Your task to perform on an android device: turn notification dots on Image 0: 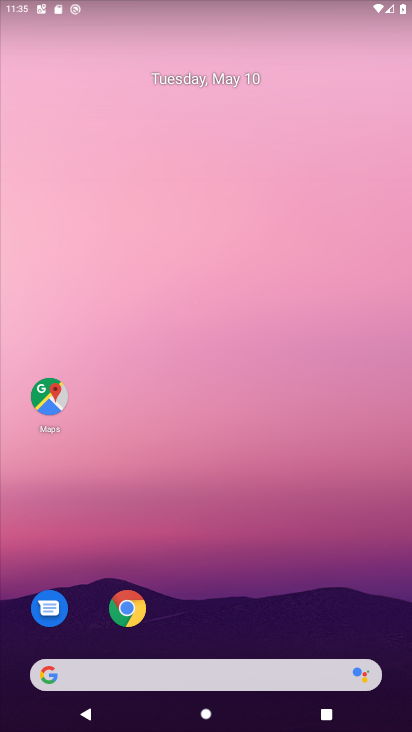
Step 0: drag from (210, 665) to (198, 149)
Your task to perform on an android device: turn notification dots on Image 1: 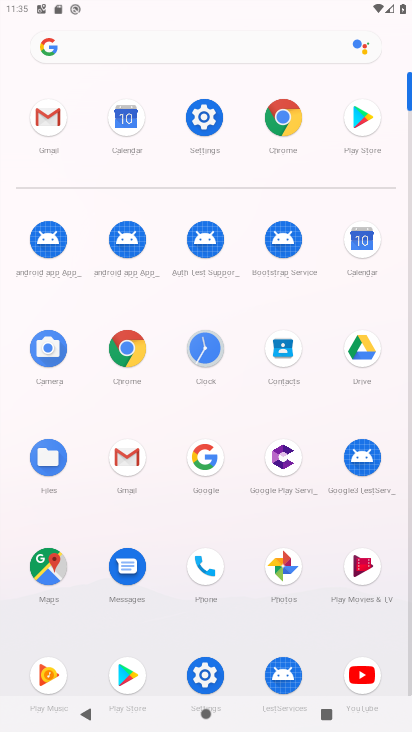
Step 1: click (209, 664)
Your task to perform on an android device: turn notification dots on Image 2: 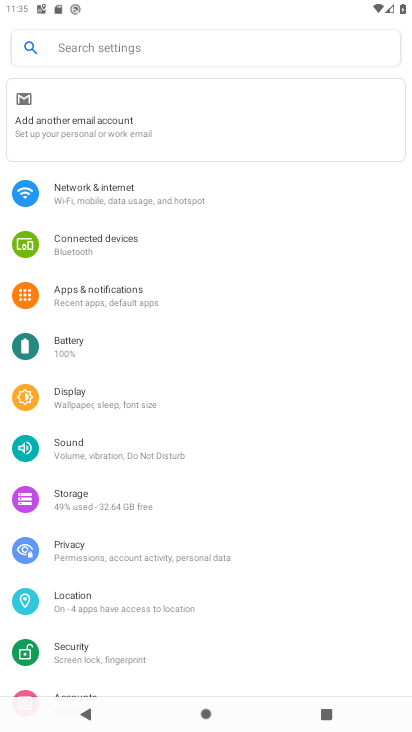
Step 2: click (137, 303)
Your task to perform on an android device: turn notification dots on Image 3: 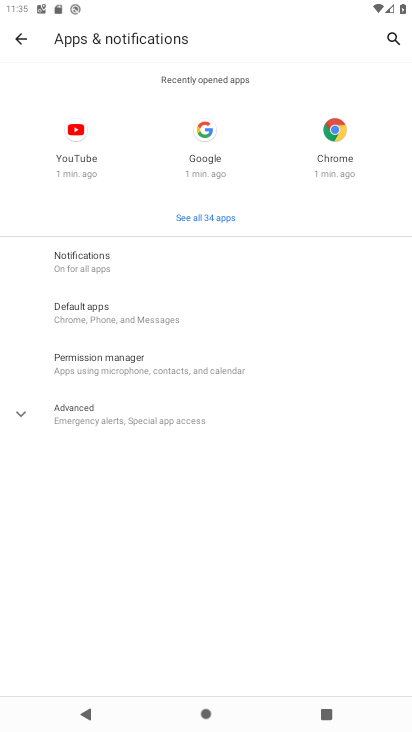
Step 3: click (190, 402)
Your task to perform on an android device: turn notification dots on Image 4: 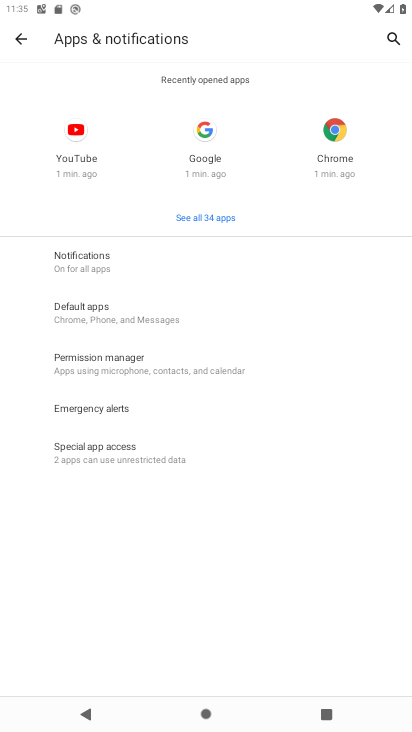
Step 4: click (109, 264)
Your task to perform on an android device: turn notification dots on Image 5: 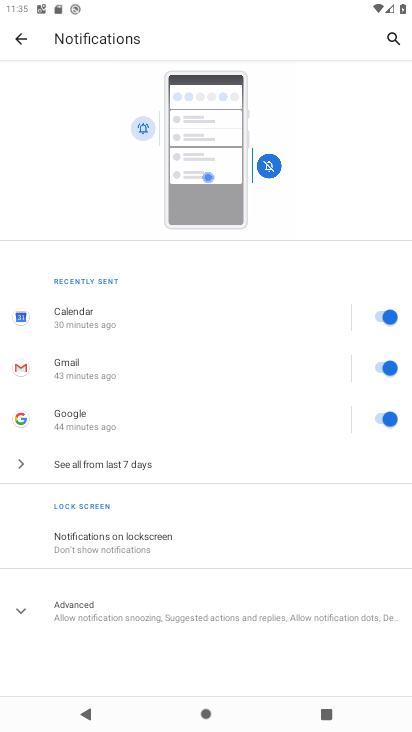
Step 5: drag from (222, 566) to (188, 164)
Your task to perform on an android device: turn notification dots on Image 6: 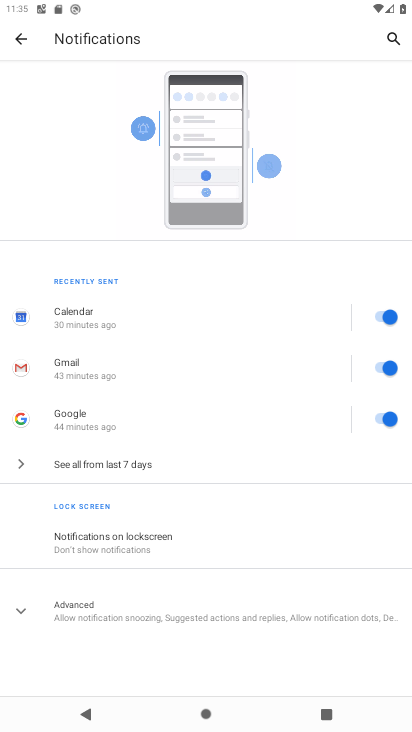
Step 6: click (138, 604)
Your task to perform on an android device: turn notification dots on Image 7: 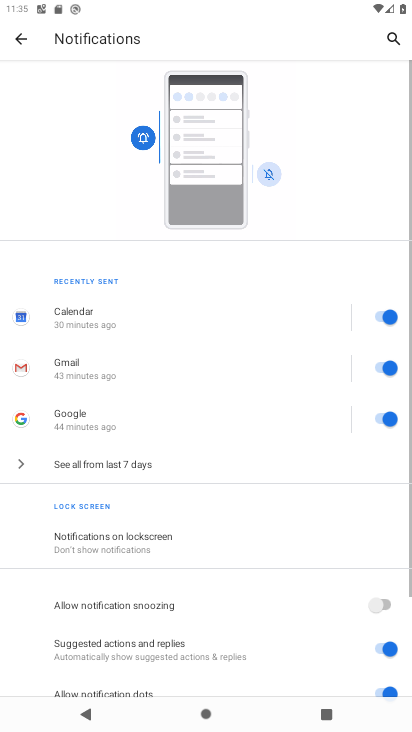
Step 7: task complete